Your task to perform on an android device: check data usage Image 0: 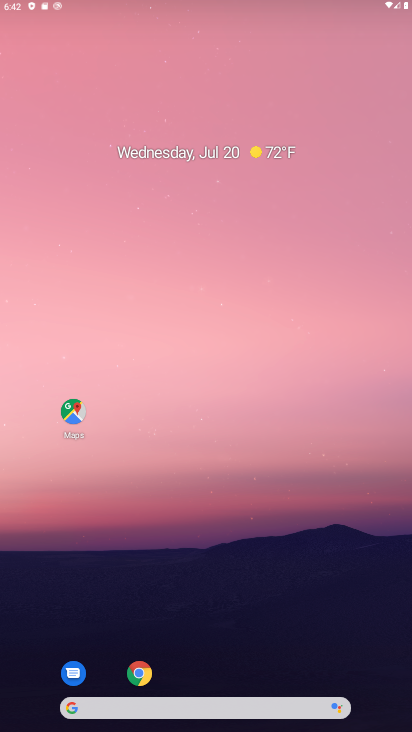
Step 0: drag from (392, 662) to (233, 5)
Your task to perform on an android device: check data usage Image 1: 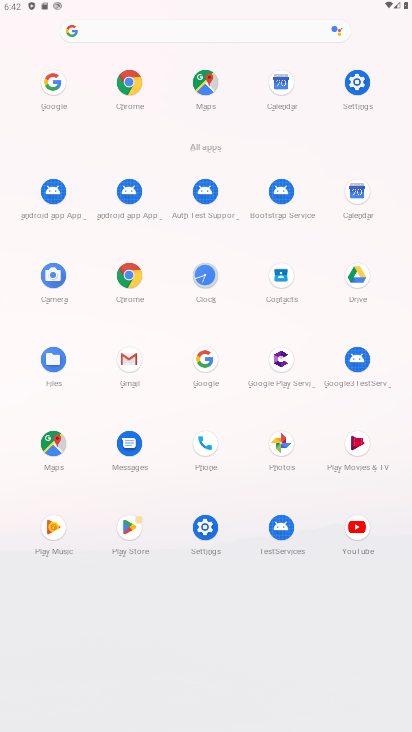
Step 1: click (356, 112)
Your task to perform on an android device: check data usage Image 2: 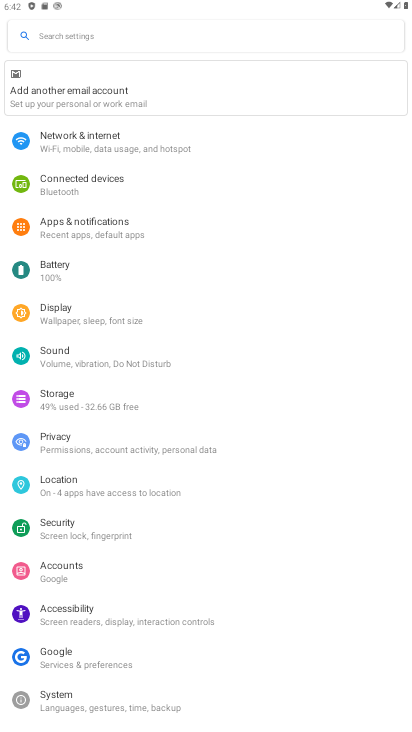
Step 2: click (124, 140)
Your task to perform on an android device: check data usage Image 3: 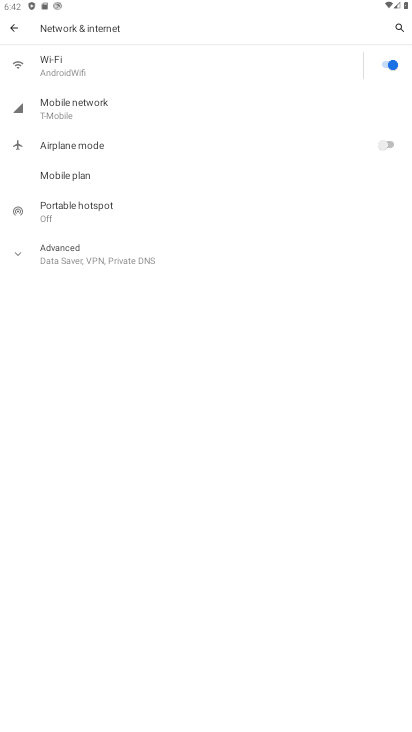
Step 3: click (81, 113)
Your task to perform on an android device: check data usage Image 4: 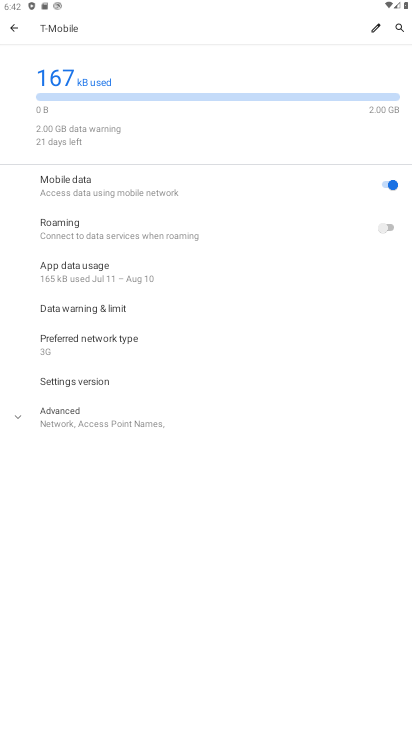
Step 4: click (127, 278)
Your task to perform on an android device: check data usage Image 5: 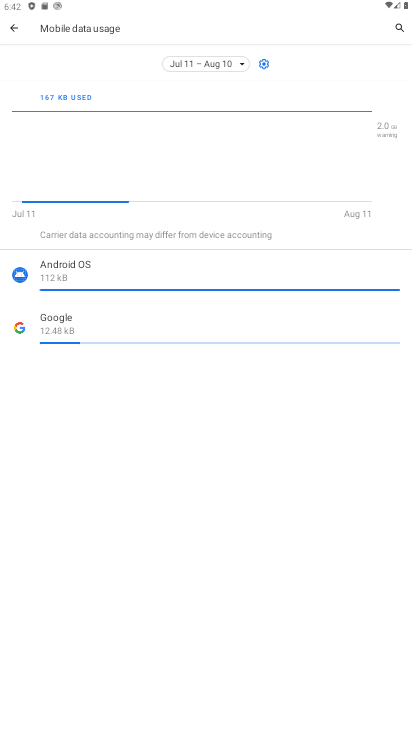
Step 5: task complete